Your task to perform on an android device: open app "TextNow: Call + Text Unlimited" (install if not already installed) Image 0: 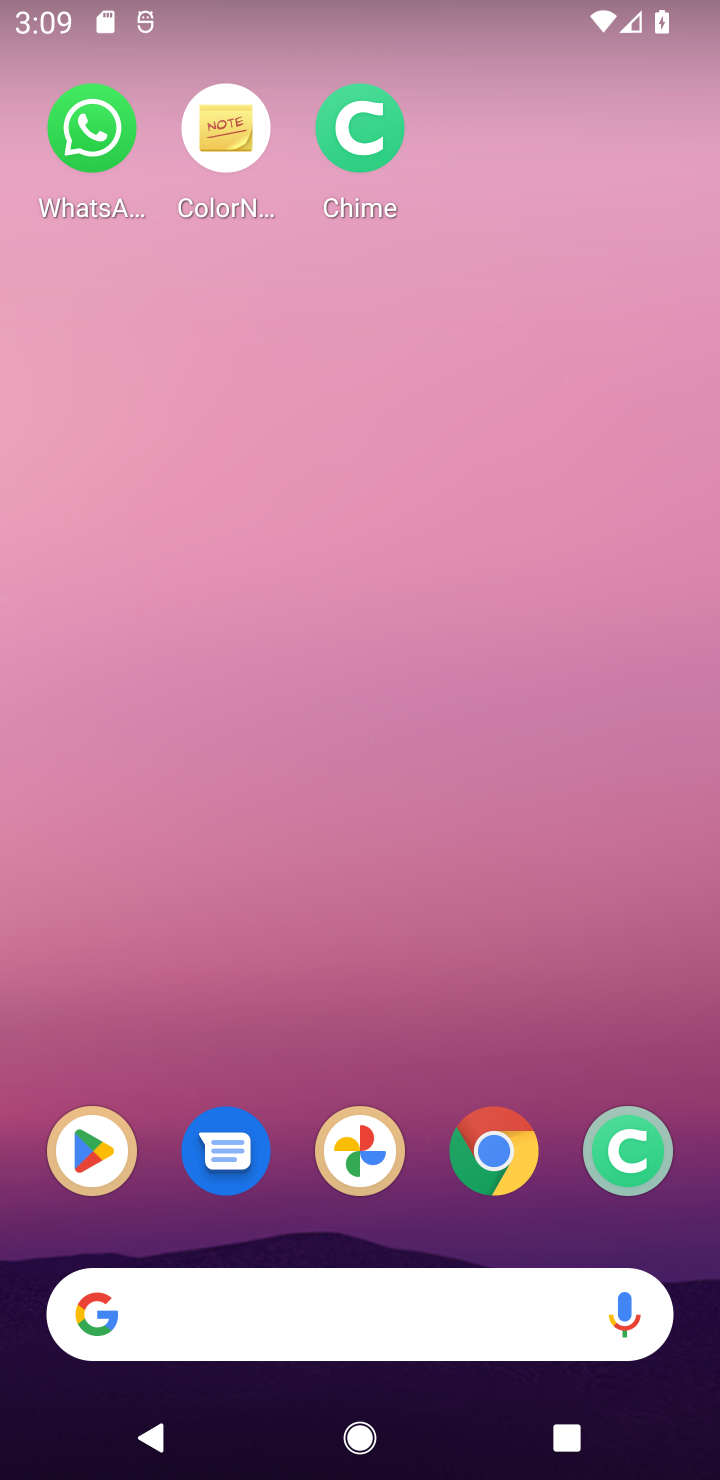
Step 0: click (88, 1146)
Your task to perform on an android device: open app "TextNow: Call + Text Unlimited" (install if not already installed) Image 1: 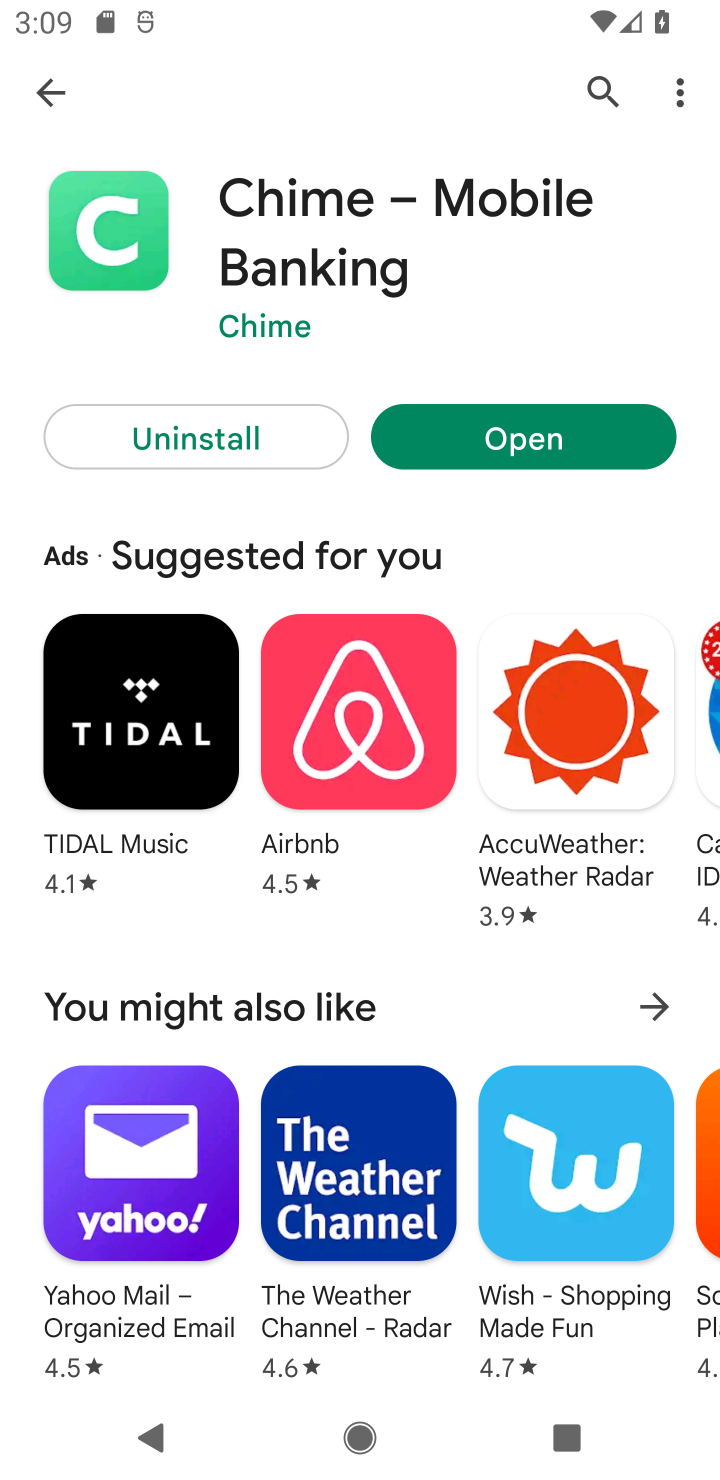
Step 1: click (591, 76)
Your task to perform on an android device: open app "TextNow: Call + Text Unlimited" (install if not already installed) Image 2: 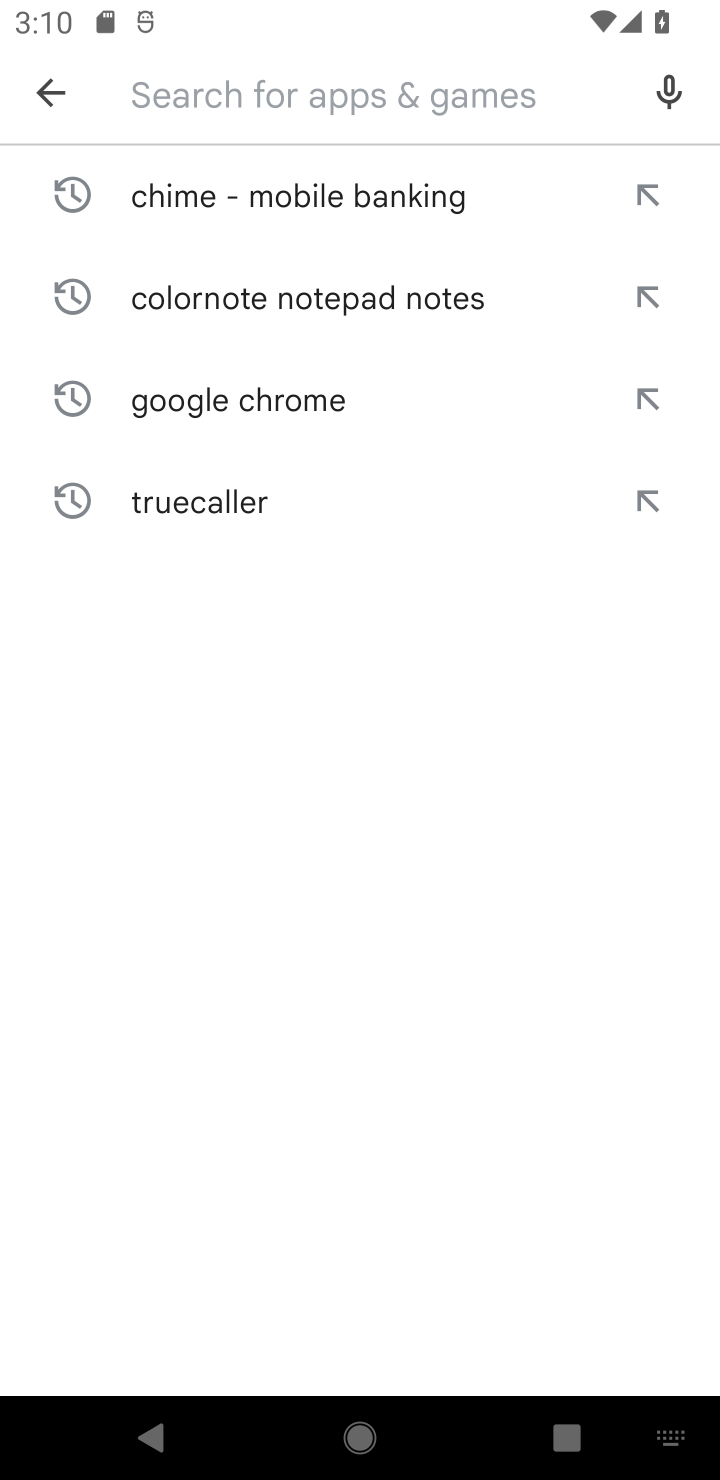
Step 2: type "textnow: call + text unlimited"
Your task to perform on an android device: open app "TextNow: Call + Text Unlimited" (install if not already installed) Image 3: 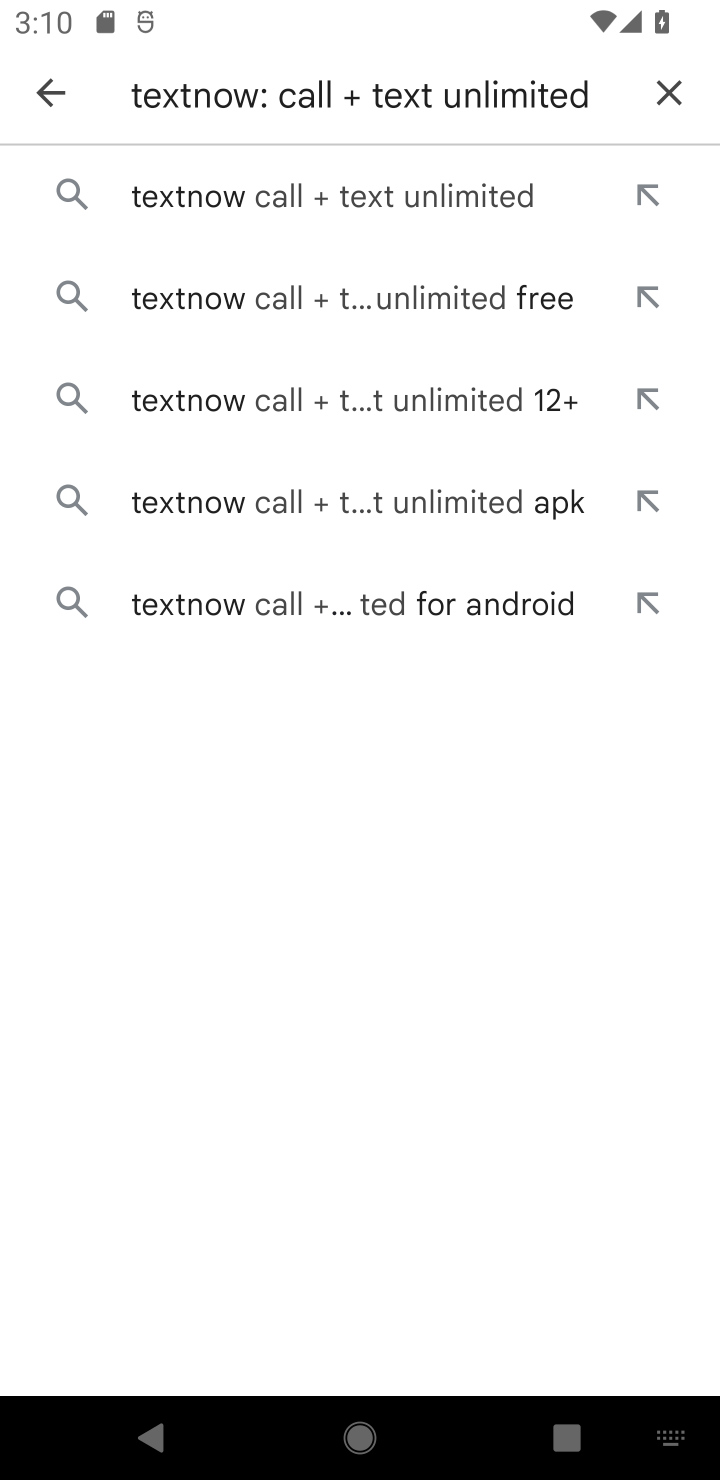
Step 3: click (348, 211)
Your task to perform on an android device: open app "TextNow: Call + Text Unlimited" (install if not already installed) Image 4: 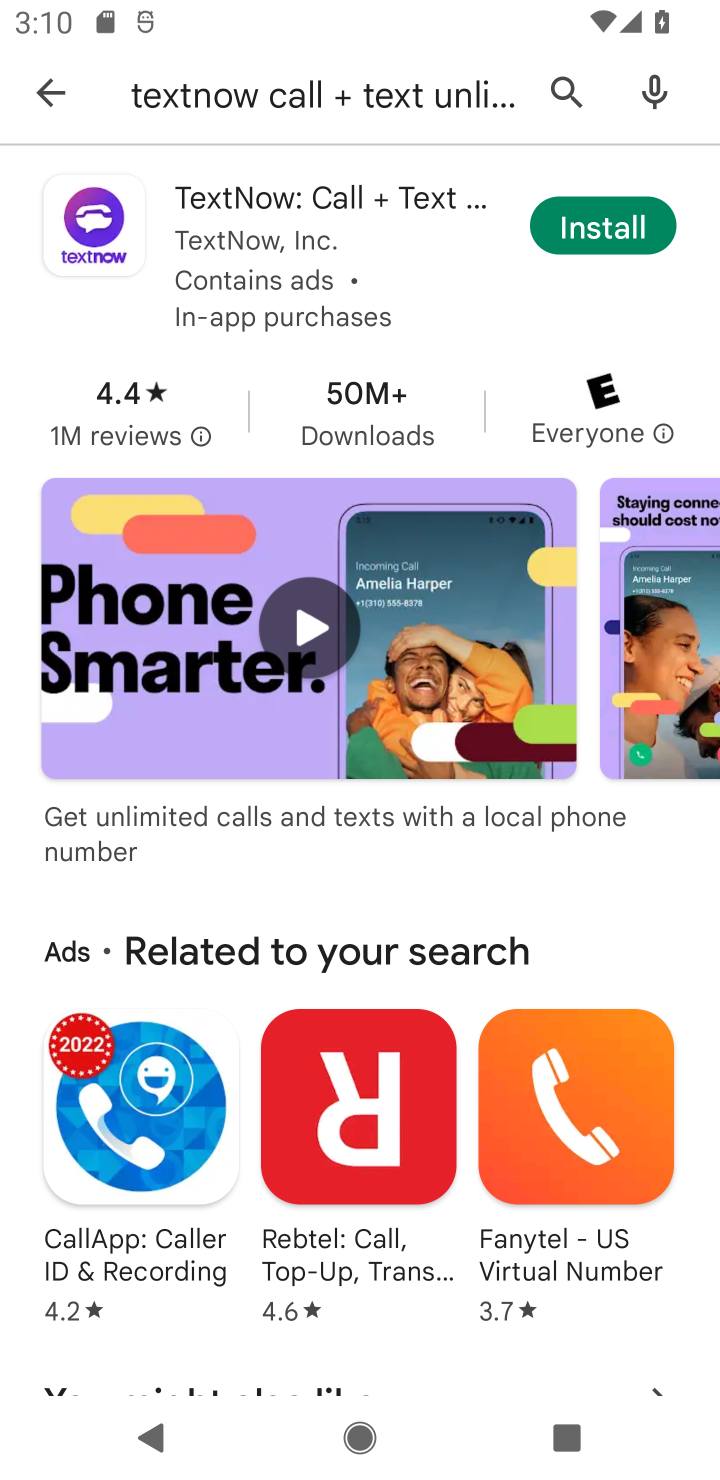
Step 4: click (395, 190)
Your task to perform on an android device: open app "TextNow: Call + Text Unlimited" (install if not already installed) Image 5: 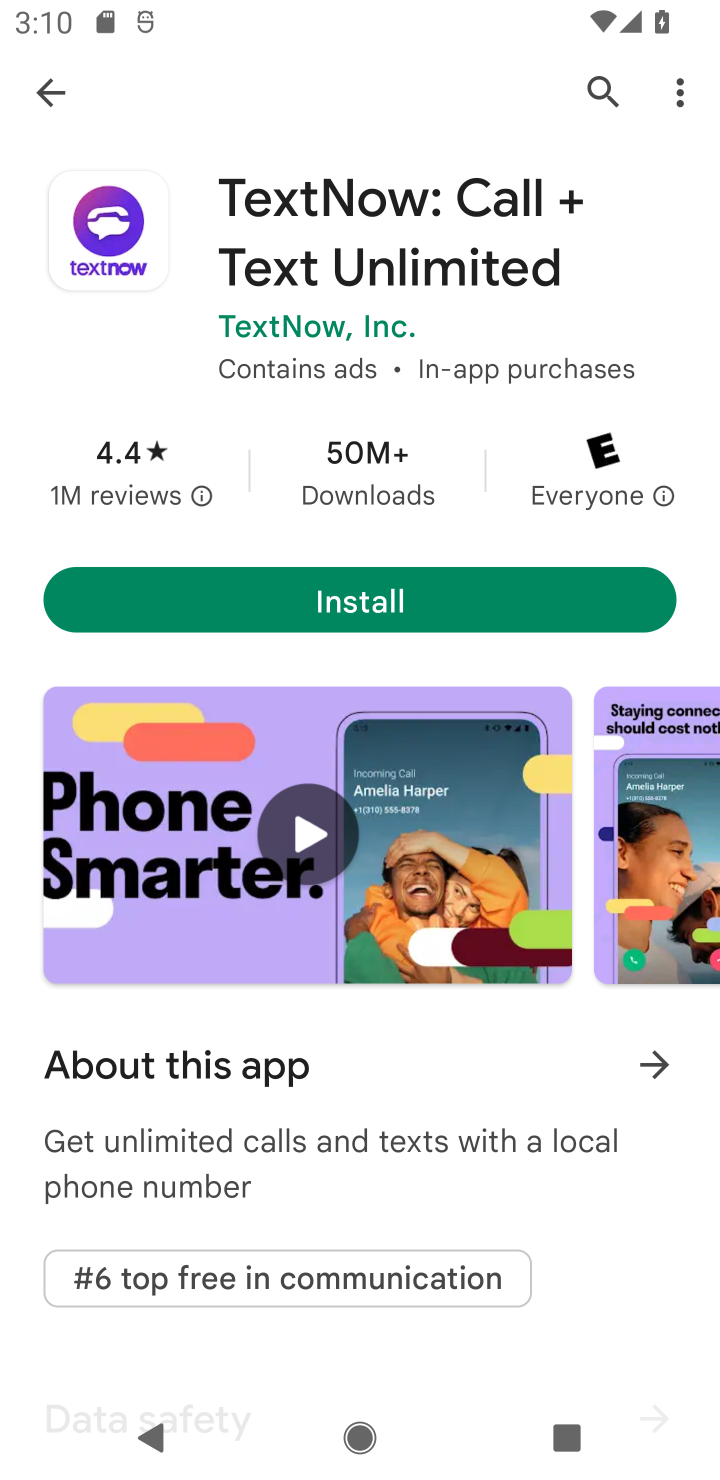
Step 5: click (430, 611)
Your task to perform on an android device: open app "TextNow: Call + Text Unlimited" (install if not already installed) Image 6: 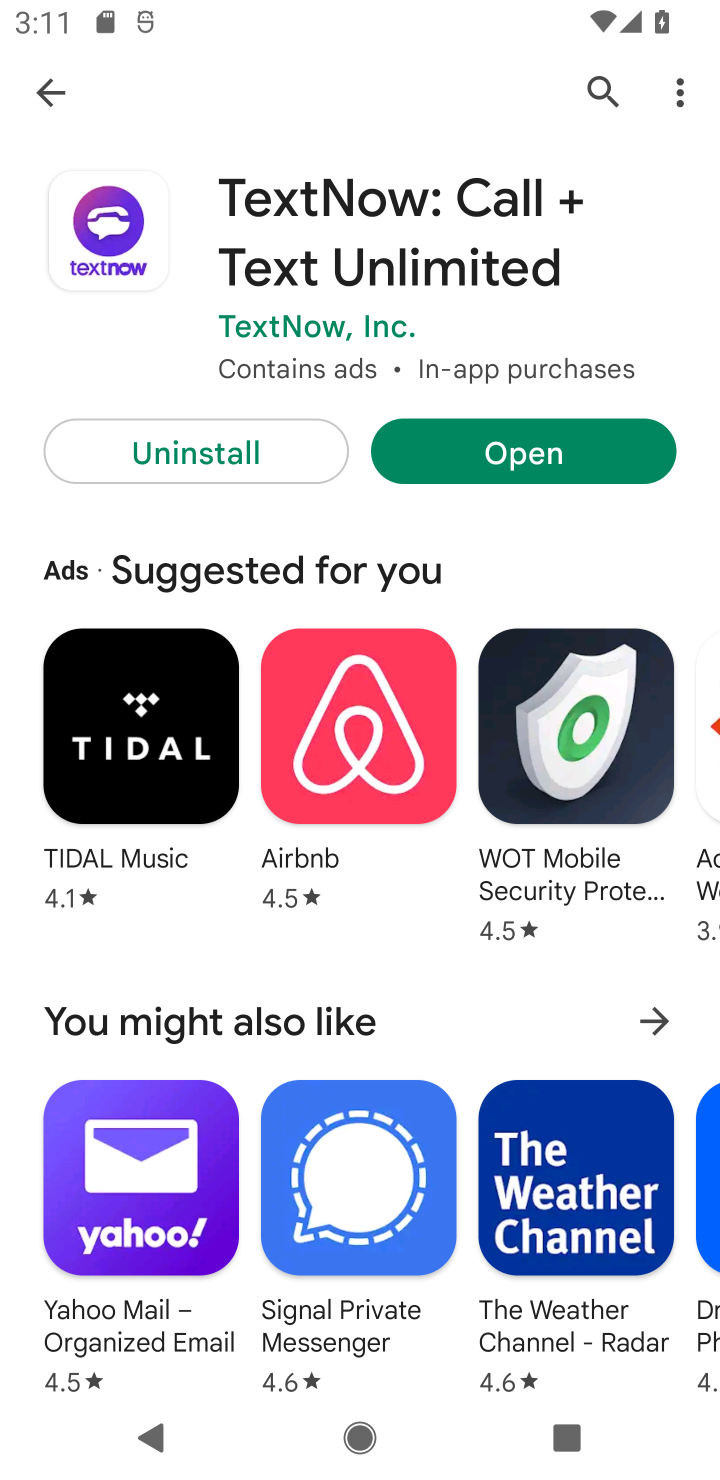
Step 6: click (501, 465)
Your task to perform on an android device: open app "TextNow: Call + Text Unlimited" (install if not already installed) Image 7: 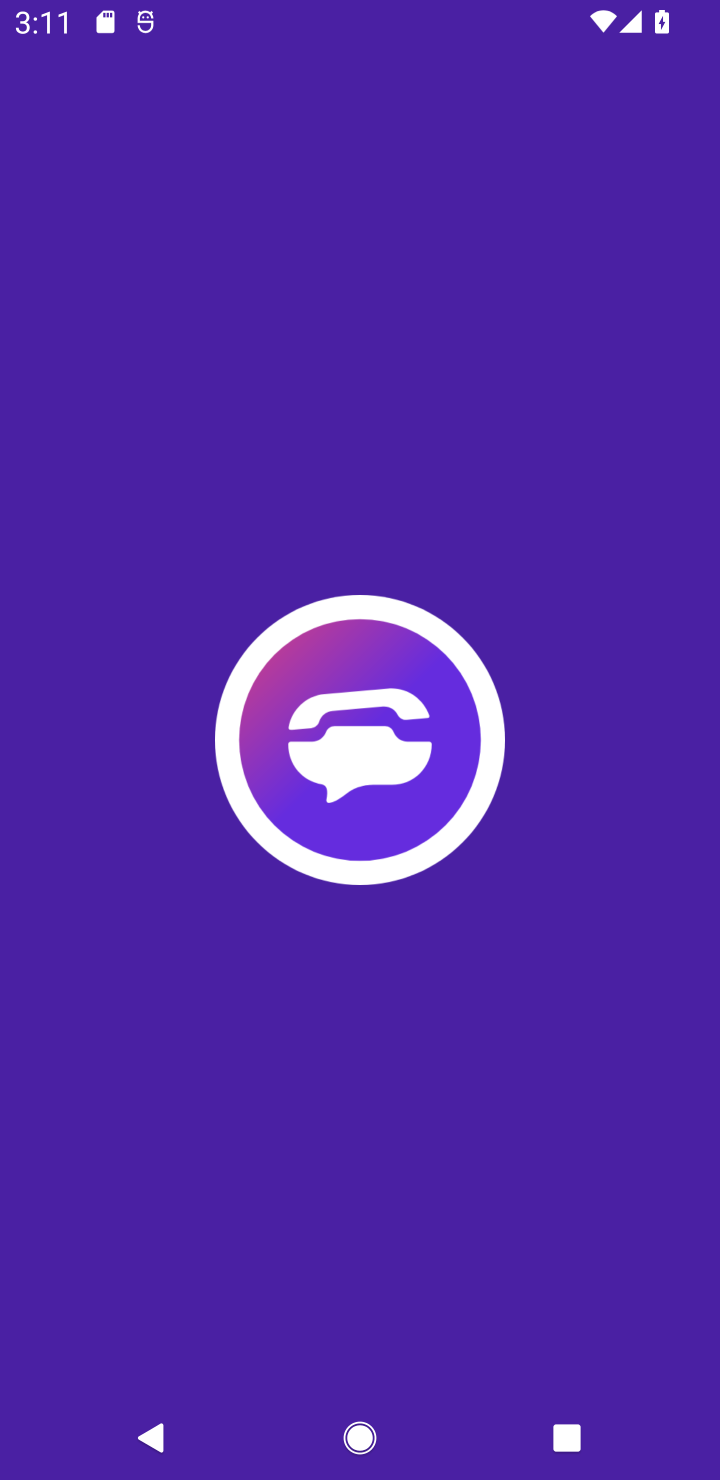
Step 7: task complete